Your task to perform on an android device: Open battery settings Image 0: 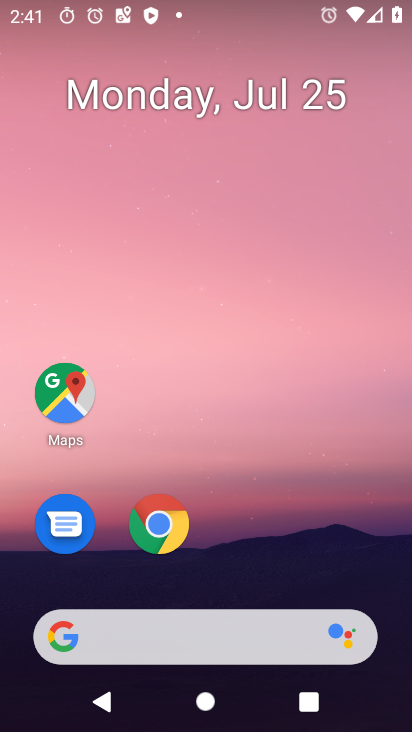
Step 0: drag from (239, 575) to (310, 0)
Your task to perform on an android device: Open battery settings Image 1: 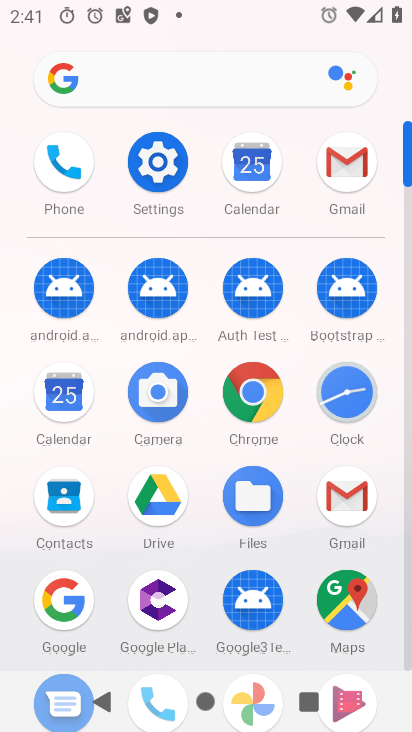
Step 1: click (163, 166)
Your task to perform on an android device: Open battery settings Image 2: 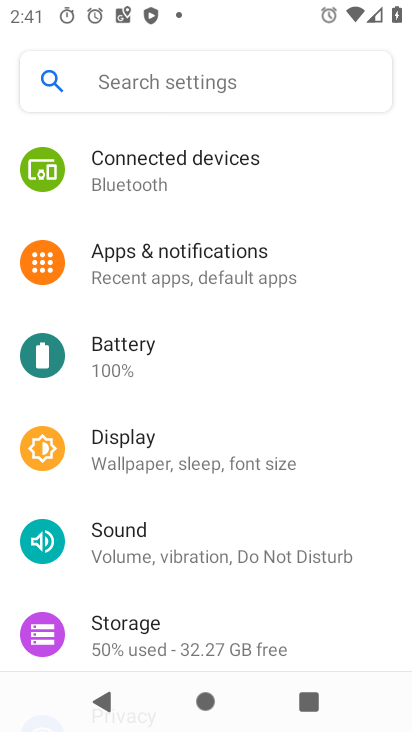
Step 2: click (120, 355)
Your task to perform on an android device: Open battery settings Image 3: 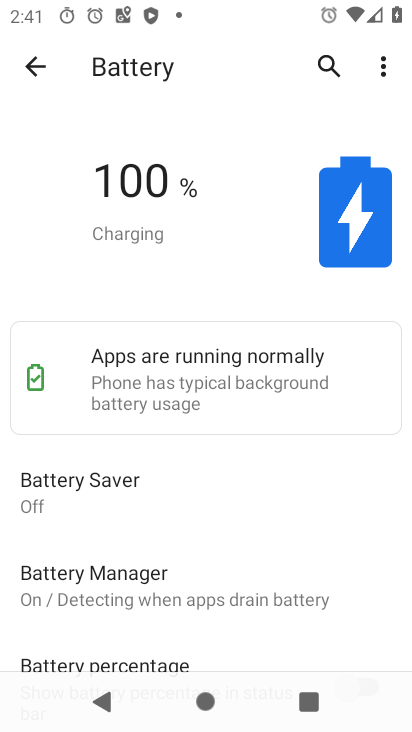
Step 3: task complete